Your task to perform on an android device: toggle data saver in the chrome app Image 0: 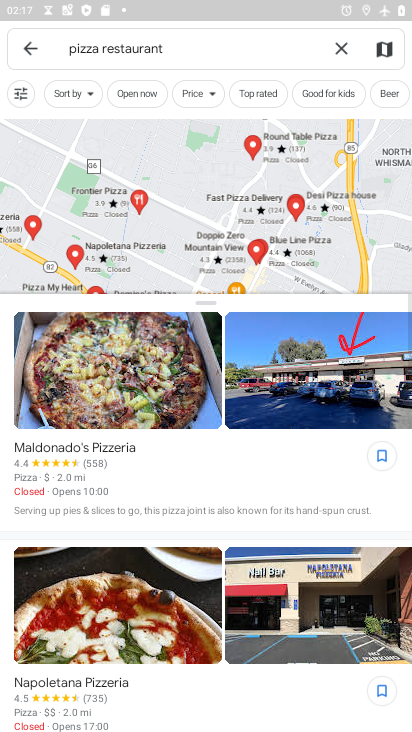
Step 0: press home button
Your task to perform on an android device: toggle data saver in the chrome app Image 1: 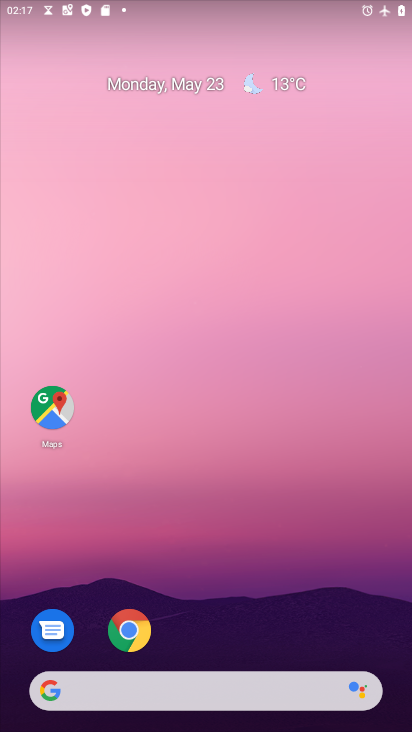
Step 1: click (239, 101)
Your task to perform on an android device: toggle data saver in the chrome app Image 2: 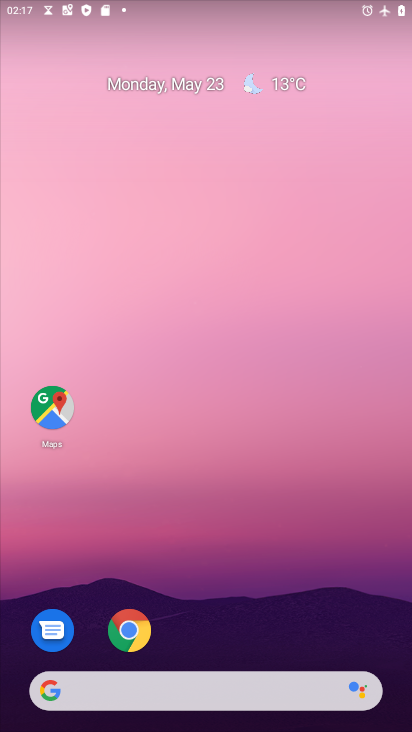
Step 2: click (141, 633)
Your task to perform on an android device: toggle data saver in the chrome app Image 3: 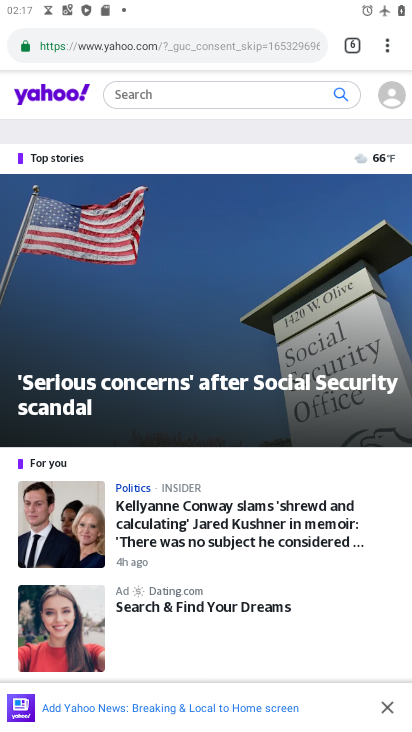
Step 3: click (382, 43)
Your task to perform on an android device: toggle data saver in the chrome app Image 4: 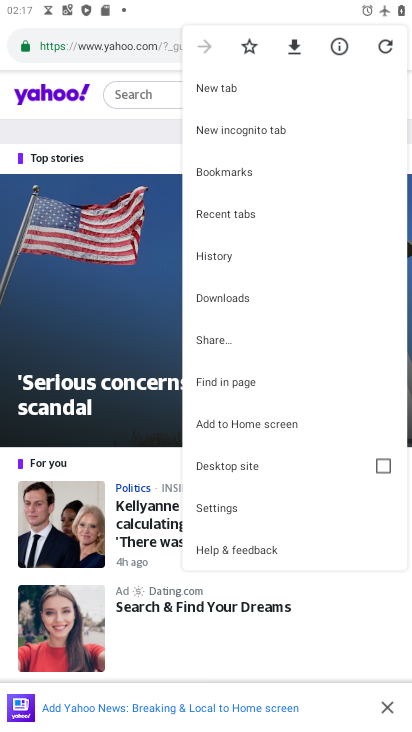
Step 4: click (226, 503)
Your task to perform on an android device: toggle data saver in the chrome app Image 5: 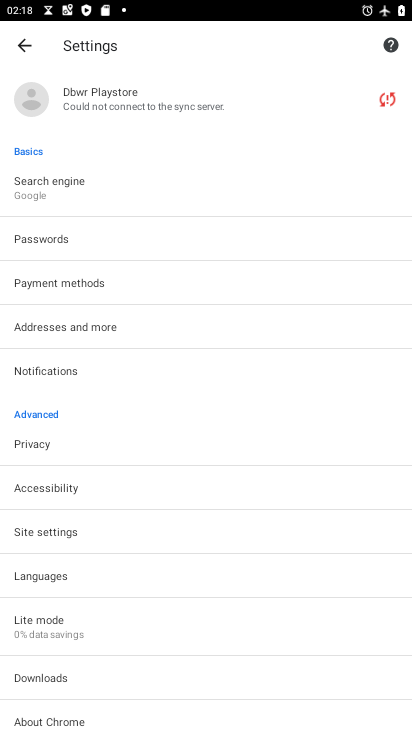
Step 5: click (87, 622)
Your task to perform on an android device: toggle data saver in the chrome app Image 6: 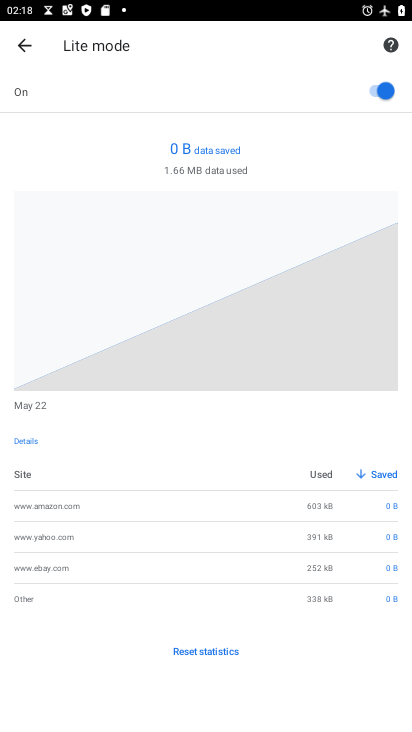
Step 6: click (382, 85)
Your task to perform on an android device: toggle data saver in the chrome app Image 7: 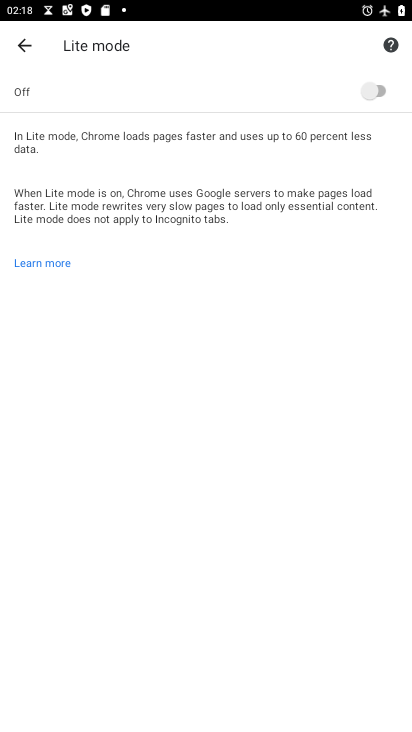
Step 7: task complete